Your task to perform on an android device: open app "Upside-Cash back on gas & food" Image 0: 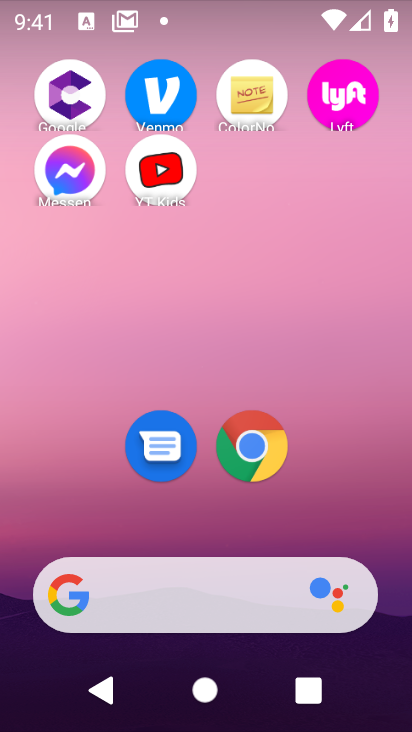
Step 0: drag from (202, 421) to (262, 38)
Your task to perform on an android device: open app "Upside-Cash back on gas & food" Image 1: 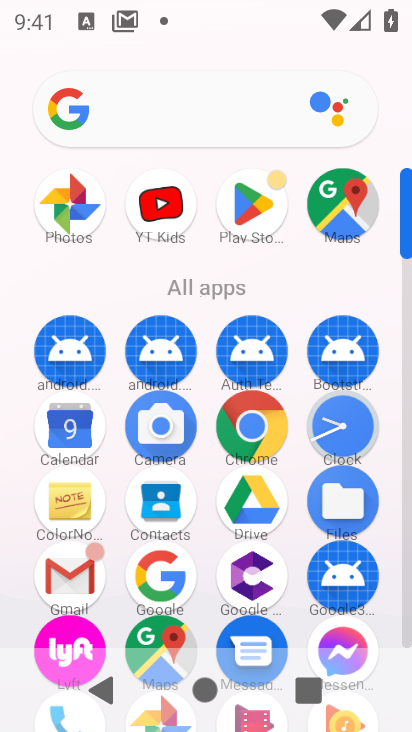
Step 1: click (252, 206)
Your task to perform on an android device: open app "Upside-Cash back on gas & food" Image 2: 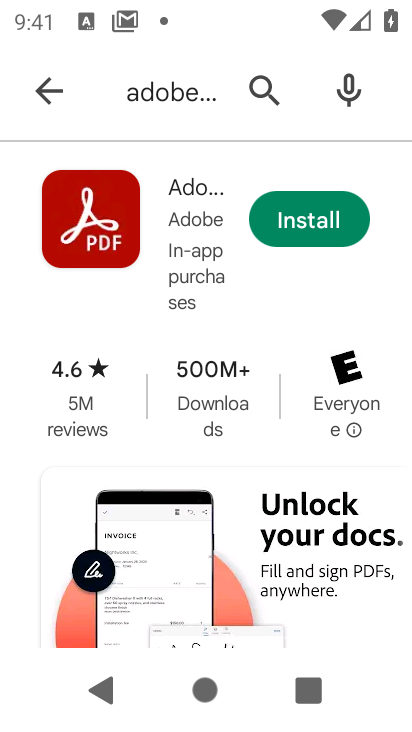
Step 2: click (264, 81)
Your task to perform on an android device: open app "Upside-Cash back on gas & food" Image 3: 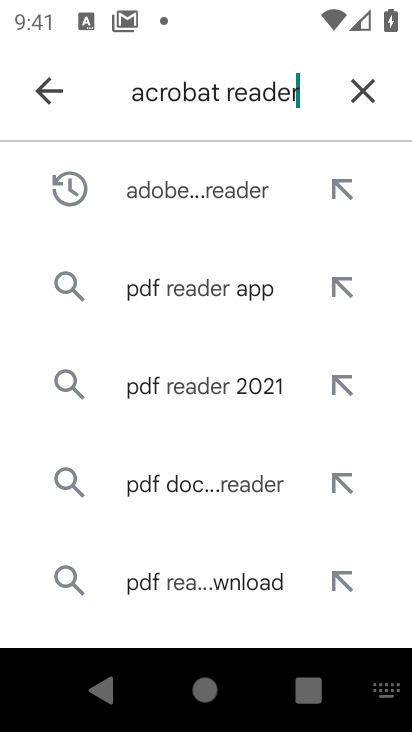
Step 3: click (350, 75)
Your task to perform on an android device: open app "Upside-Cash back on gas & food" Image 4: 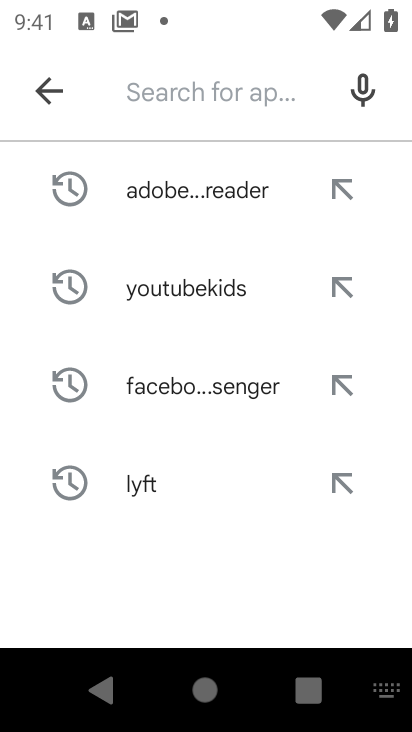
Step 4: click (151, 83)
Your task to perform on an android device: open app "Upside-Cash back on gas & food" Image 5: 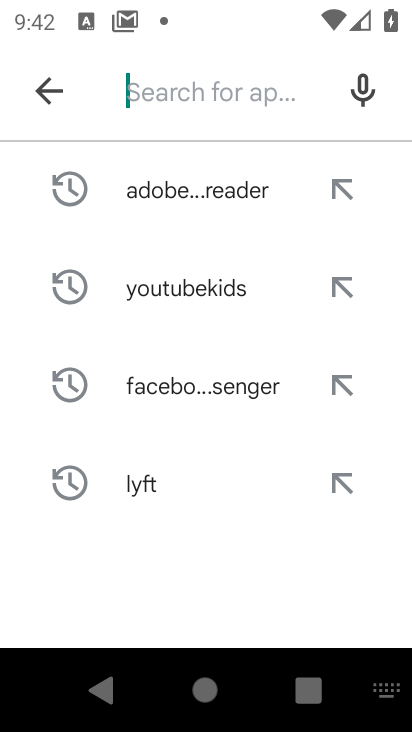
Step 5: type "Upside-Cash back on gas & food"
Your task to perform on an android device: open app "Upside-Cash back on gas & food" Image 6: 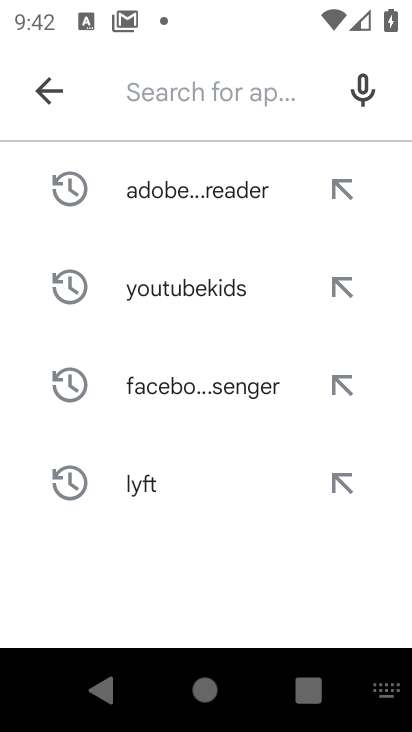
Step 6: click (243, 571)
Your task to perform on an android device: open app "Upside-Cash back on gas & food" Image 7: 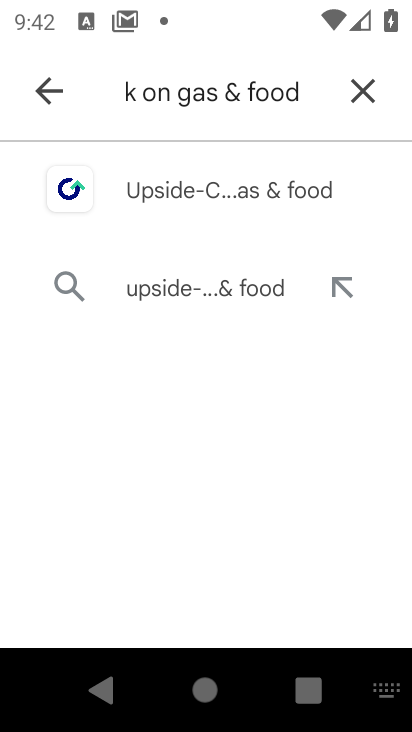
Step 7: click (126, 199)
Your task to perform on an android device: open app "Upside-Cash back on gas & food" Image 8: 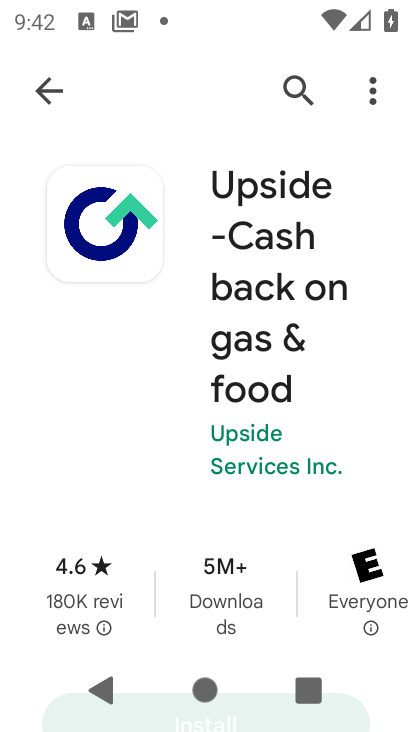
Step 8: task complete